Your task to perform on an android device: change the clock display to analog Image 0: 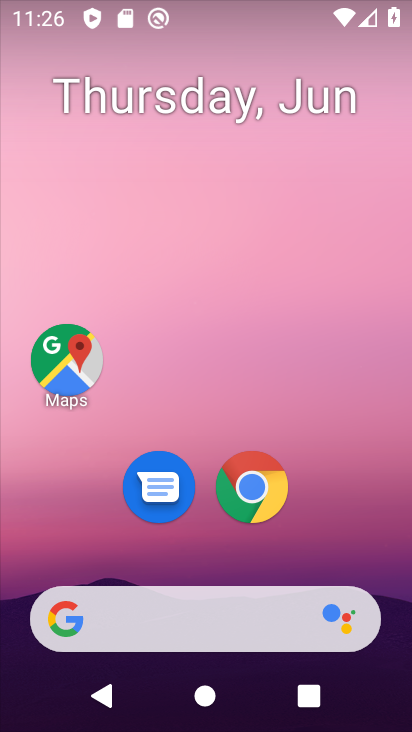
Step 0: drag from (110, 604) to (244, 21)
Your task to perform on an android device: change the clock display to analog Image 1: 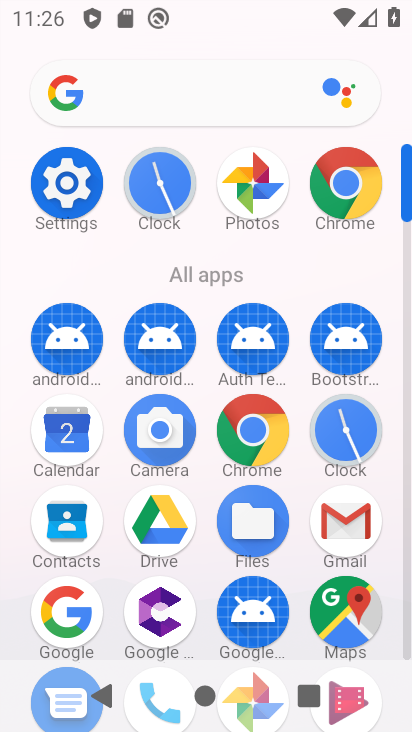
Step 1: click (345, 423)
Your task to perform on an android device: change the clock display to analog Image 2: 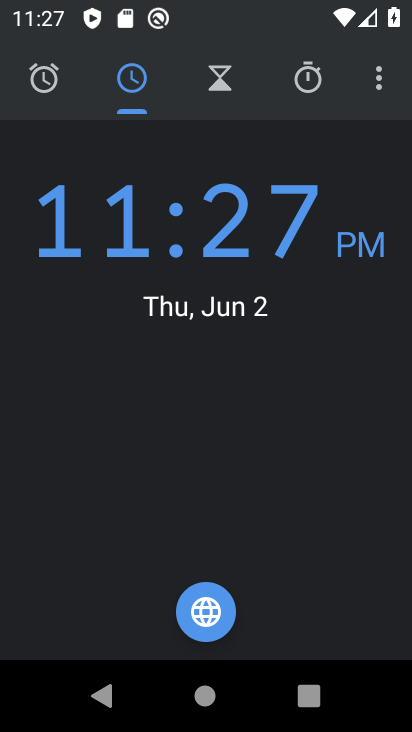
Step 2: click (366, 79)
Your task to perform on an android device: change the clock display to analog Image 3: 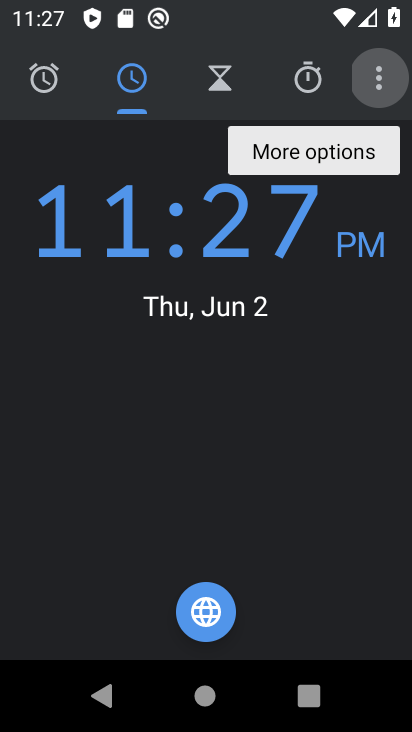
Step 3: click (374, 83)
Your task to perform on an android device: change the clock display to analog Image 4: 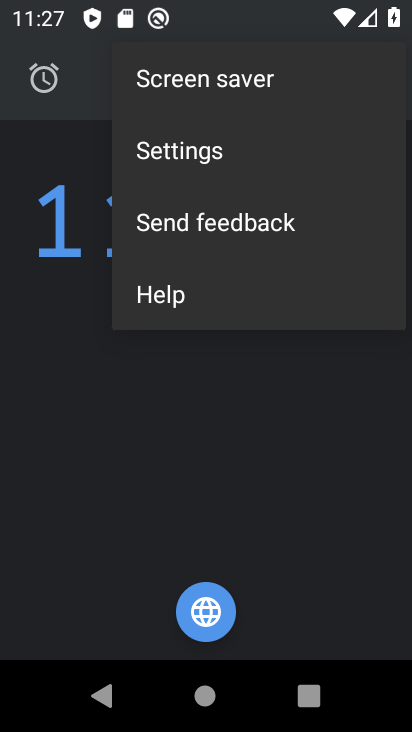
Step 4: click (294, 161)
Your task to perform on an android device: change the clock display to analog Image 5: 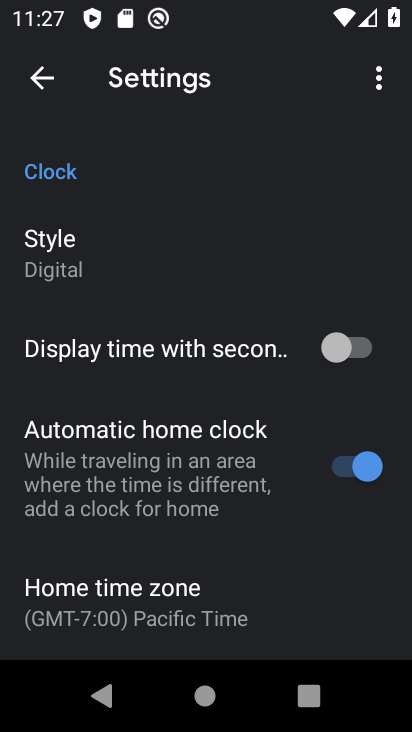
Step 5: click (181, 267)
Your task to perform on an android device: change the clock display to analog Image 6: 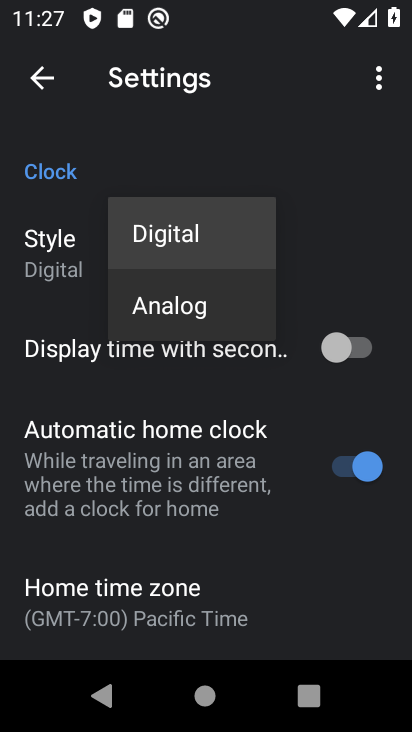
Step 6: click (165, 301)
Your task to perform on an android device: change the clock display to analog Image 7: 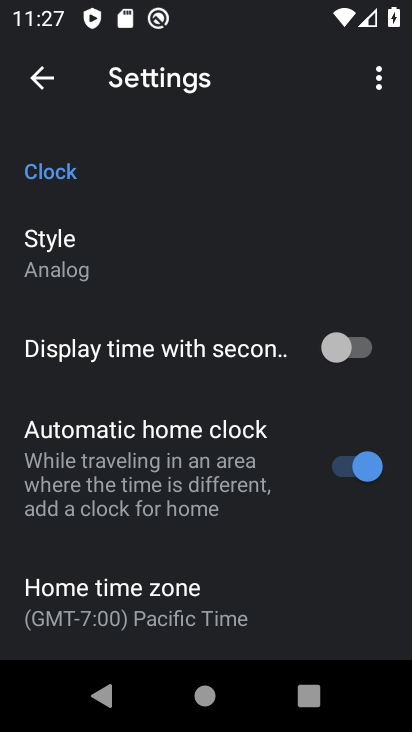
Step 7: task complete